Your task to perform on an android device: move an email to a new category in the gmail app Image 0: 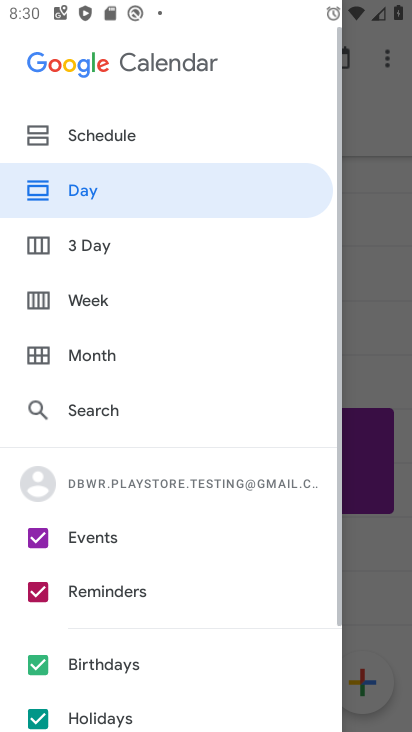
Step 0: press home button
Your task to perform on an android device: move an email to a new category in the gmail app Image 1: 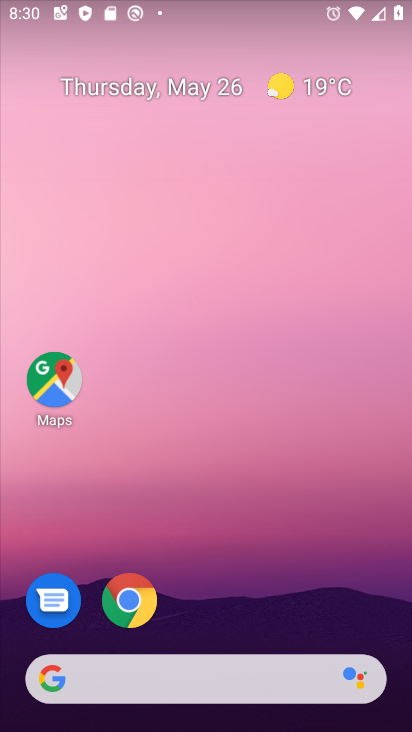
Step 1: drag from (265, 633) to (277, 249)
Your task to perform on an android device: move an email to a new category in the gmail app Image 2: 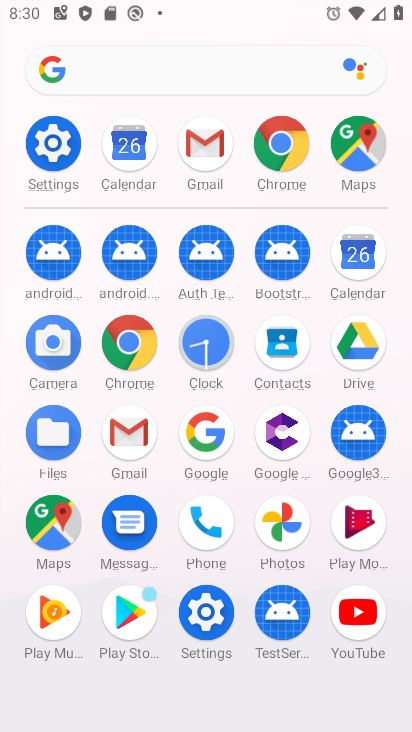
Step 2: click (203, 151)
Your task to perform on an android device: move an email to a new category in the gmail app Image 3: 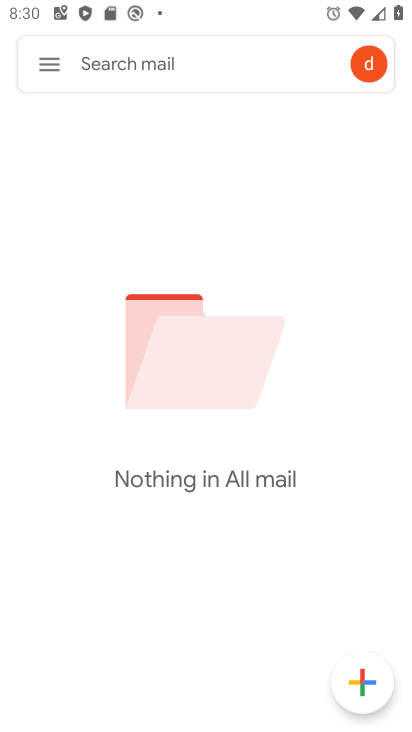
Step 3: click (47, 59)
Your task to perform on an android device: move an email to a new category in the gmail app Image 4: 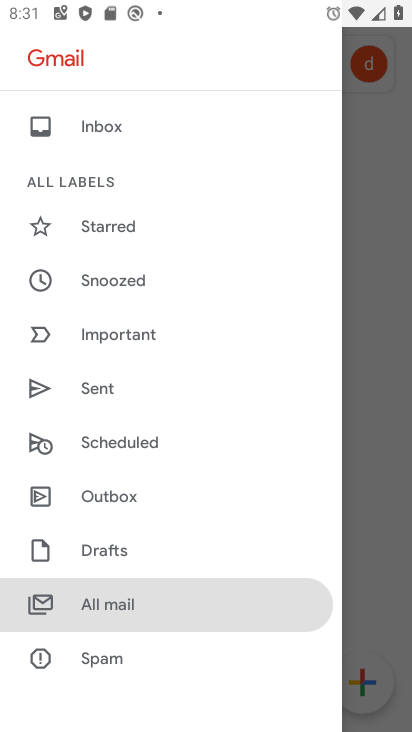
Step 4: click (117, 599)
Your task to perform on an android device: move an email to a new category in the gmail app Image 5: 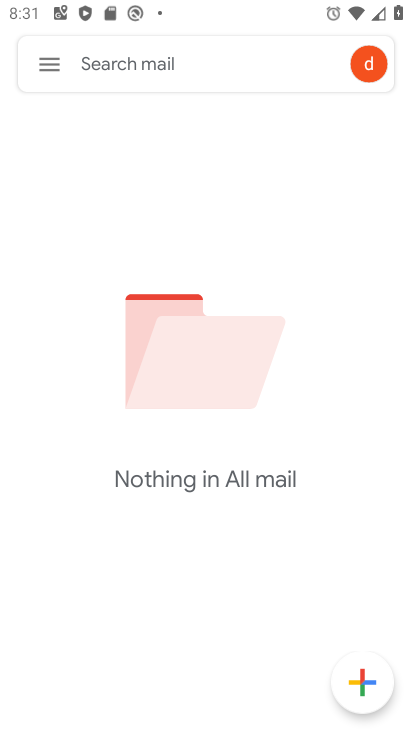
Step 5: task complete